Your task to perform on an android device: turn pop-ups on in chrome Image 0: 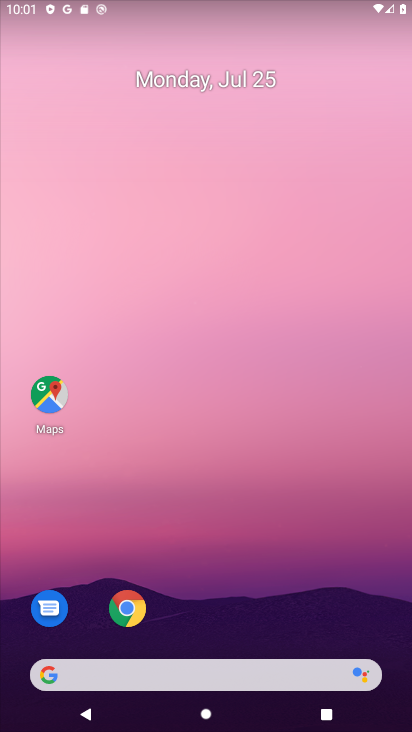
Step 0: click (139, 612)
Your task to perform on an android device: turn pop-ups on in chrome Image 1: 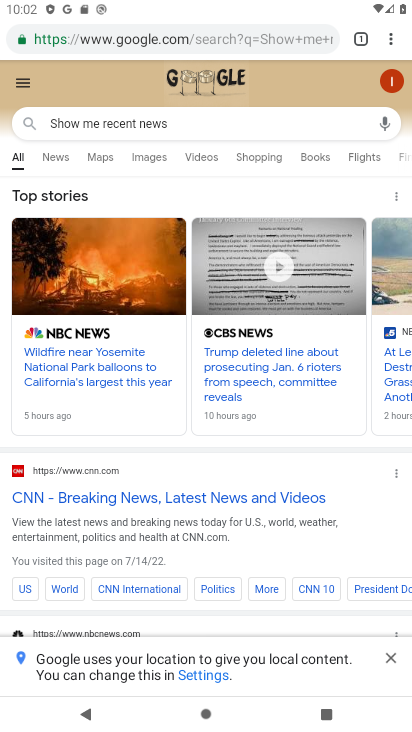
Step 1: click (395, 26)
Your task to perform on an android device: turn pop-ups on in chrome Image 2: 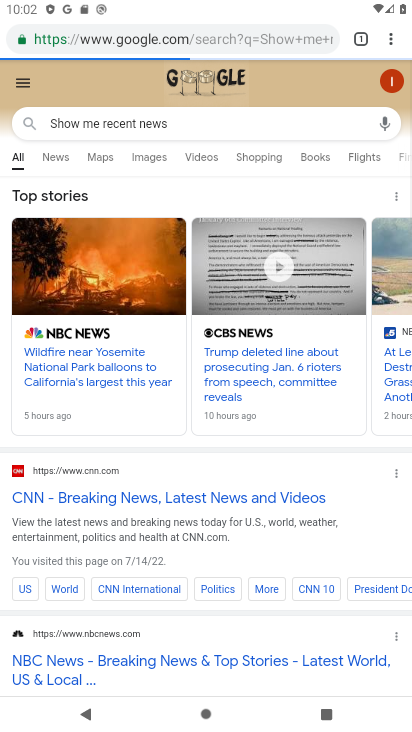
Step 2: click (395, 44)
Your task to perform on an android device: turn pop-ups on in chrome Image 3: 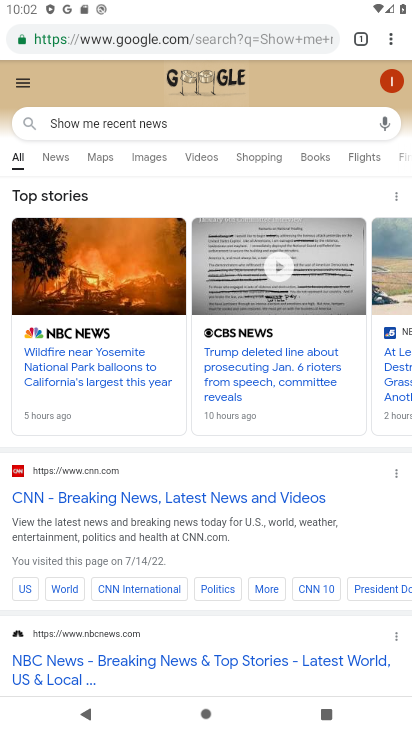
Step 3: click (389, 33)
Your task to perform on an android device: turn pop-ups on in chrome Image 4: 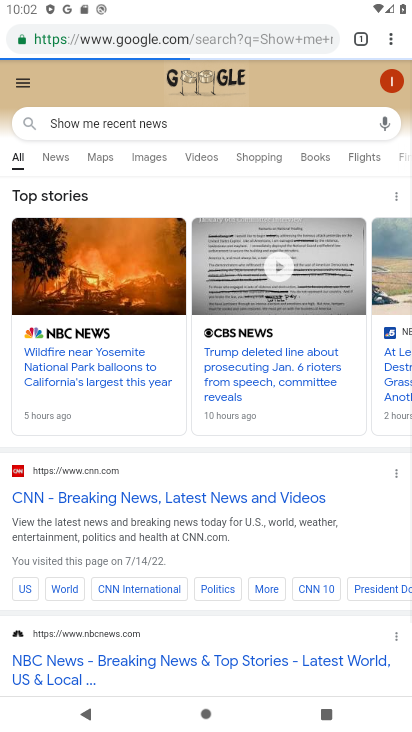
Step 4: click (389, 33)
Your task to perform on an android device: turn pop-ups on in chrome Image 5: 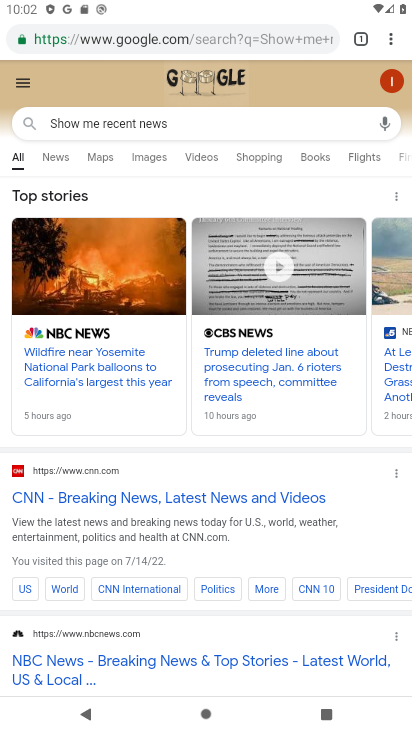
Step 5: click (389, 33)
Your task to perform on an android device: turn pop-ups on in chrome Image 6: 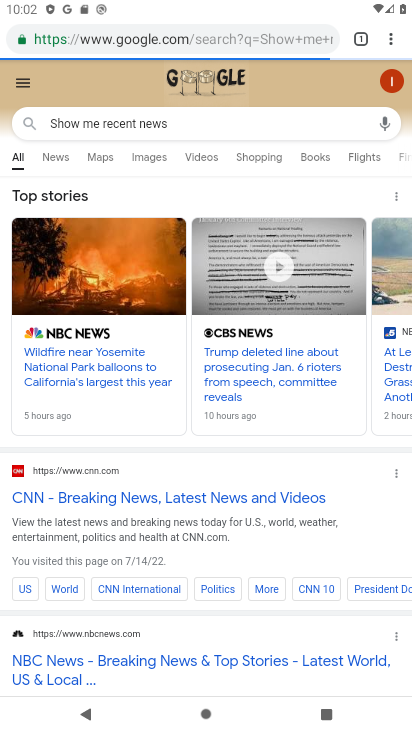
Step 6: click (397, 43)
Your task to perform on an android device: turn pop-ups on in chrome Image 7: 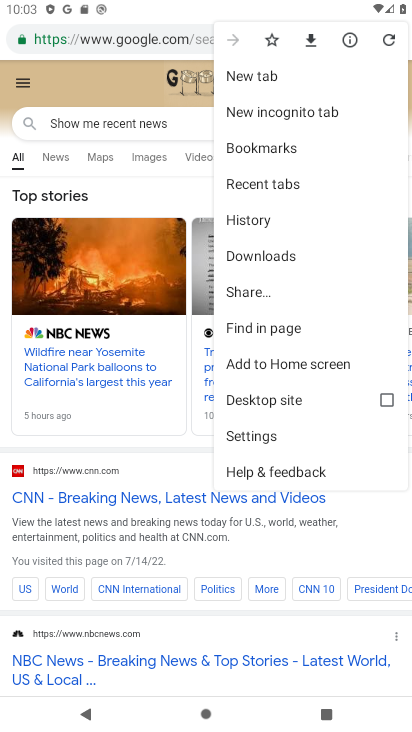
Step 7: click (262, 431)
Your task to perform on an android device: turn pop-ups on in chrome Image 8: 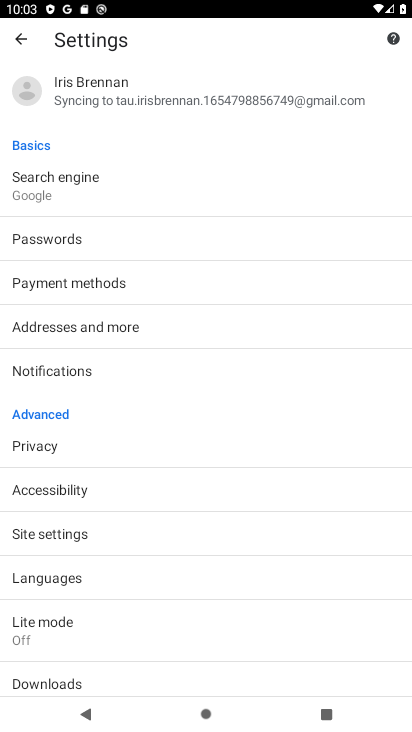
Step 8: click (91, 523)
Your task to perform on an android device: turn pop-ups on in chrome Image 9: 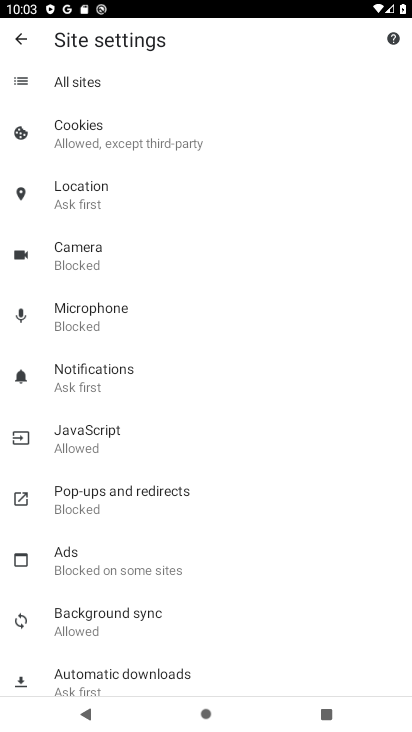
Step 9: click (101, 421)
Your task to perform on an android device: turn pop-ups on in chrome Image 10: 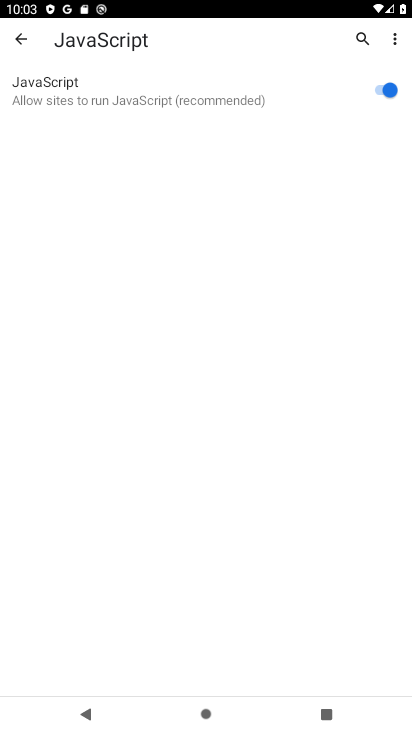
Step 10: click (18, 31)
Your task to perform on an android device: turn pop-ups on in chrome Image 11: 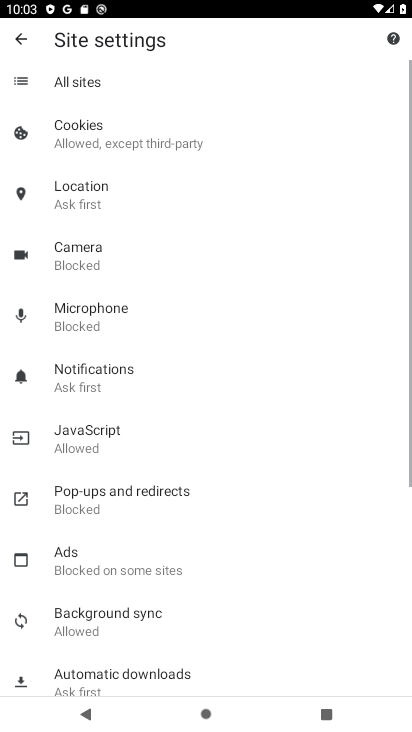
Step 11: click (113, 530)
Your task to perform on an android device: turn pop-ups on in chrome Image 12: 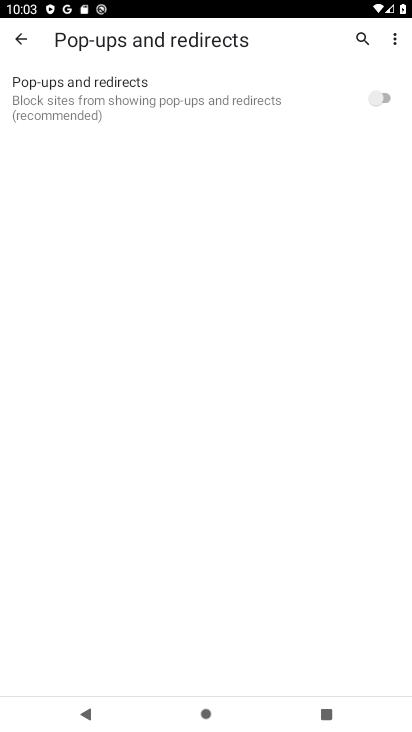
Step 12: click (382, 103)
Your task to perform on an android device: turn pop-ups on in chrome Image 13: 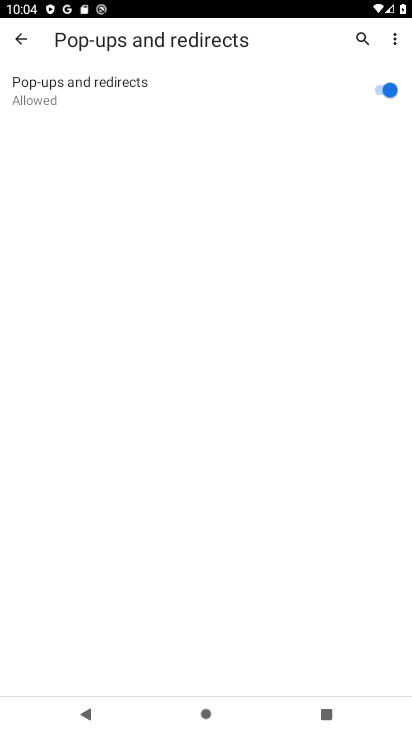
Step 13: task complete